Your task to perform on an android device: Go to privacy settings Image 0: 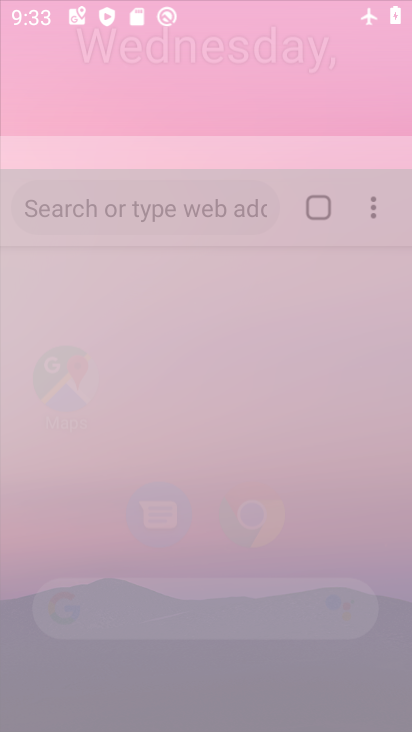
Step 0: click (233, 577)
Your task to perform on an android device: Go to privacy settings Image 1: 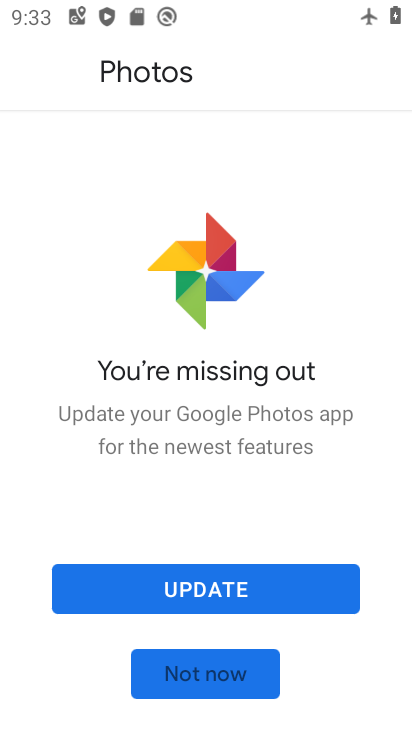
Step 1: press home button
Your task to perform on an android device: Go to privacy settings Image 2: 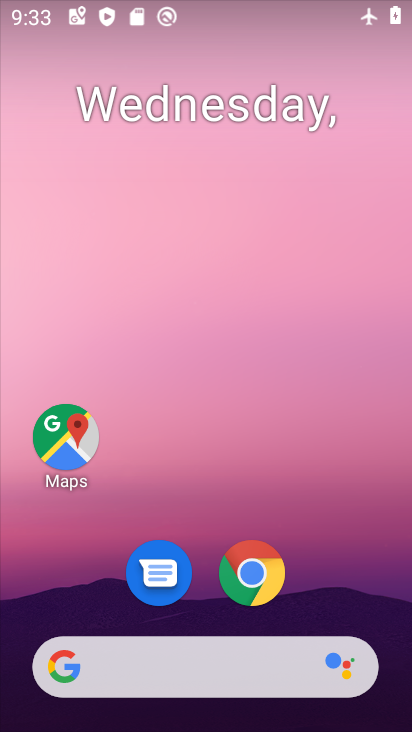
Step 2: click (258, 563)
Your task to perform on an android device: Go to privacy settings Image 3: 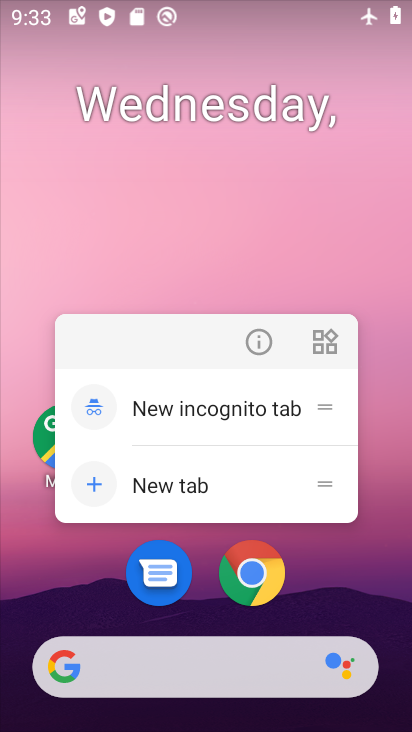
Step 3: click (258, 563)
Your task to perform on an android device: Go to privacy settings Image 4: 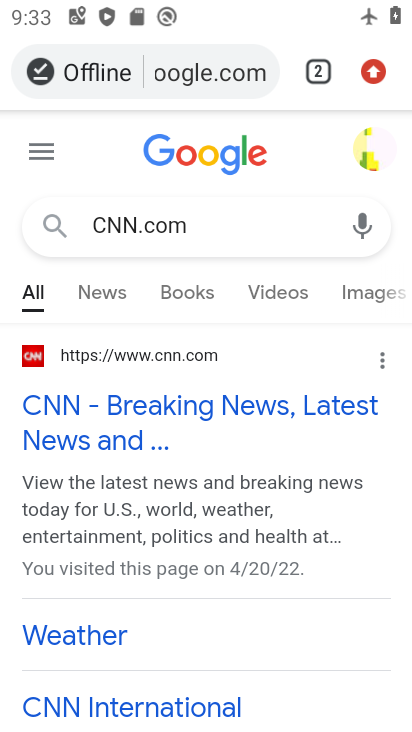
Step 4: click (369, 71)
Your task to perform on an android device: Go to privacy settings Image 5: 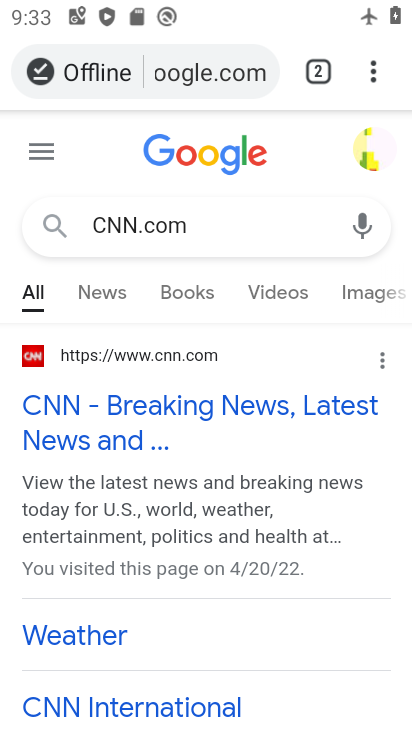
Step 5: click (369, 71)
Your task to perform on an android device: Go to privacy settings Image 6: 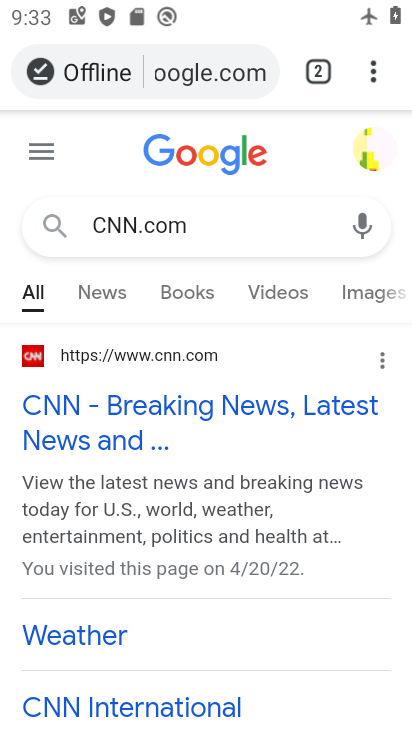
Step 6: click (371, 66)
Your task to perform on an android device: Go to privacy settings Image 7: 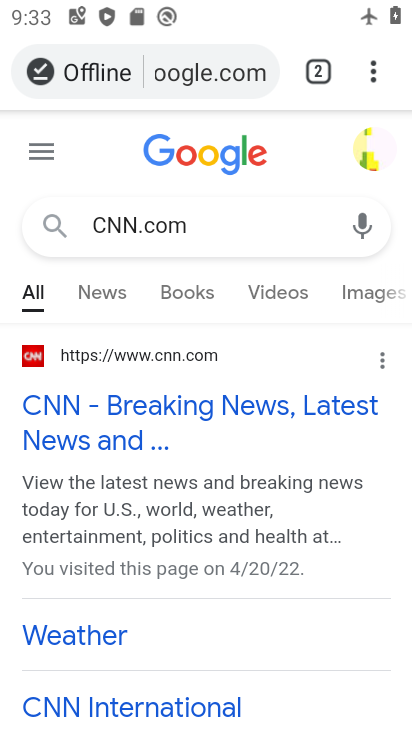
Step 7: click (371, 66)
Your task to perform on an android device: Go to privacy settings Image 8: 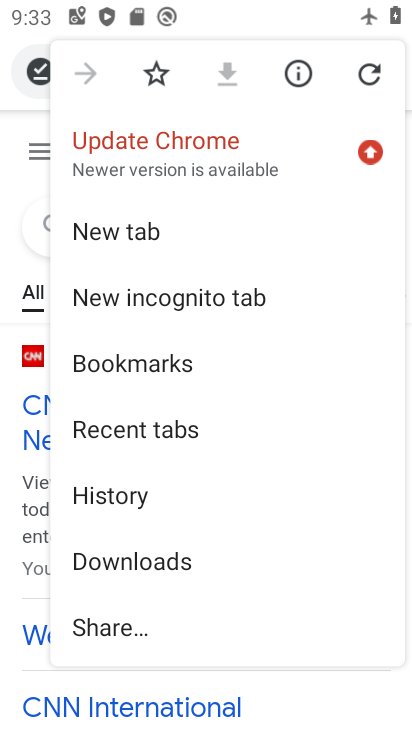
Step 8: drag from (259, 598) to (271, 151)
Your task to perform on an android device: Go to privacy settings Image 9: 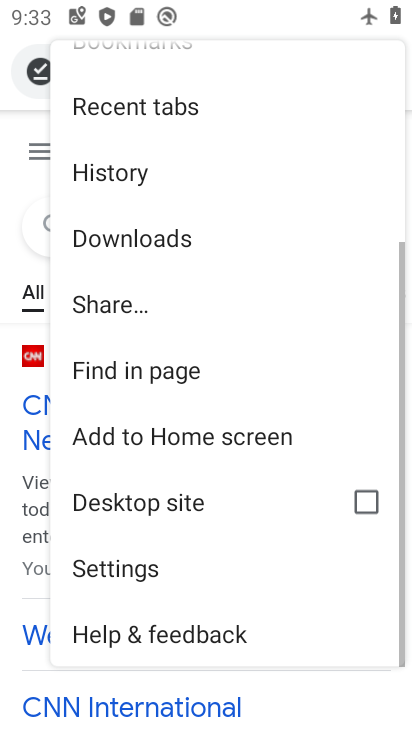
Step 9: click (115, 562)
Your task to perform on an android device: Go to privacy settings Image 10: 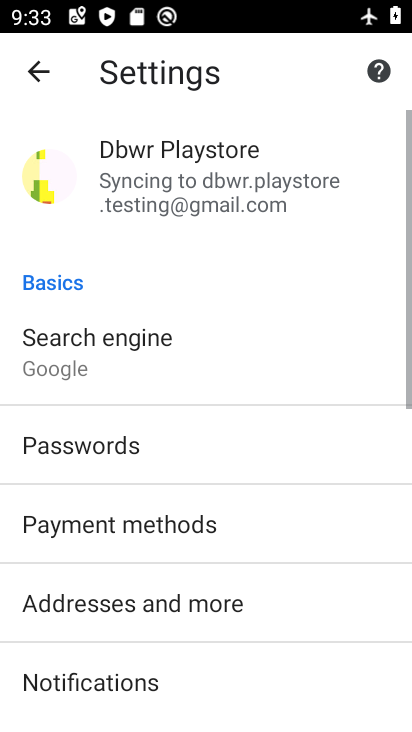
Step 10: drag from (281, 636) to (302, 268)
Your task to perform on an android device: Go to privacy settings Image 11: 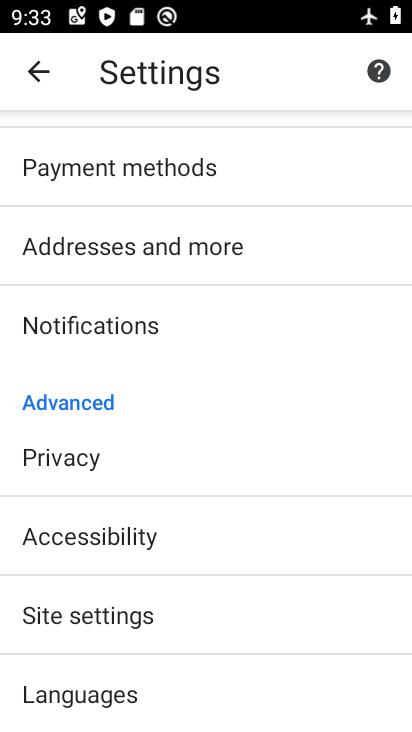
Step 11: drag from (298, 495) to (314, 236)
Your task to perform on an android device: Go to privacy settings Image 12: 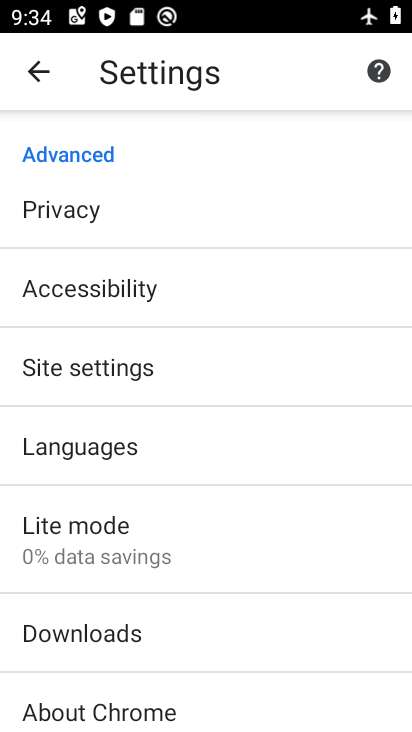
Step 12: click (53, 206)
Your task to perform on an android device: Go to privacy settings Image 13: 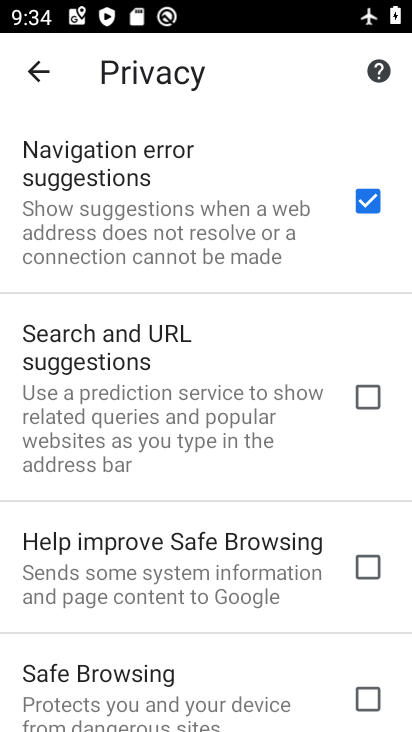
Step 13: task complete